Your task to perform on an android device: see sites visited before in the chrome app Image 0: 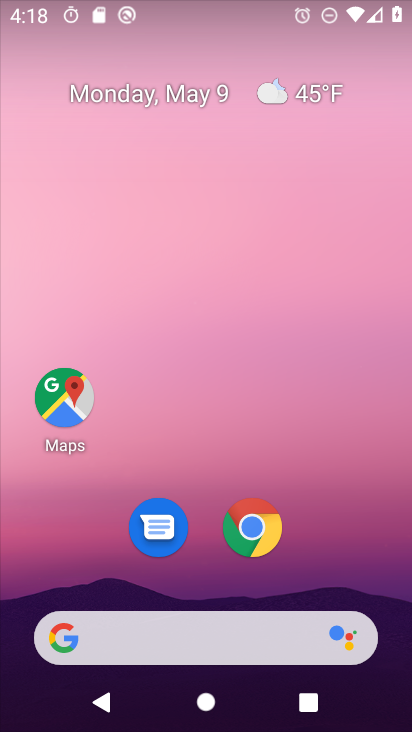
Step 0: click (267, 543)
Your task to perform on an android device: see sites visited before in the chrome app Image 1: 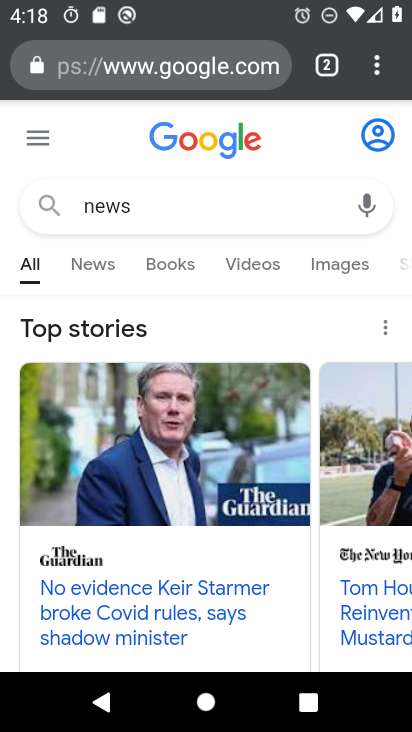
Step 1: click (388, 70)
Your task to perform on an android device: see sites visited before in the chrome app Image 2: 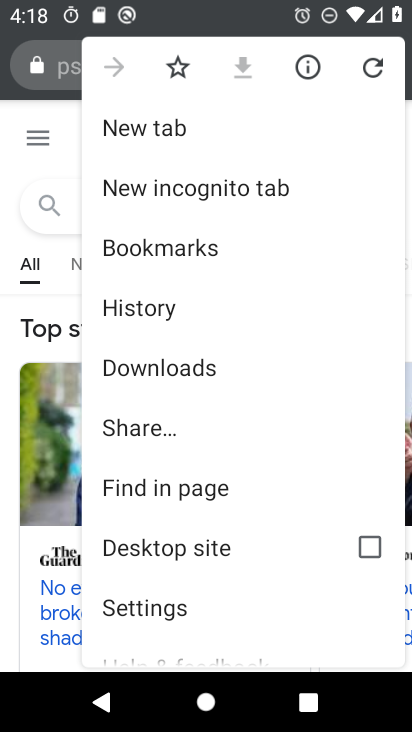
Step 2: click (253, 308)
Your task to perform on an android device: see sites visited before in the chrome app Image 3: 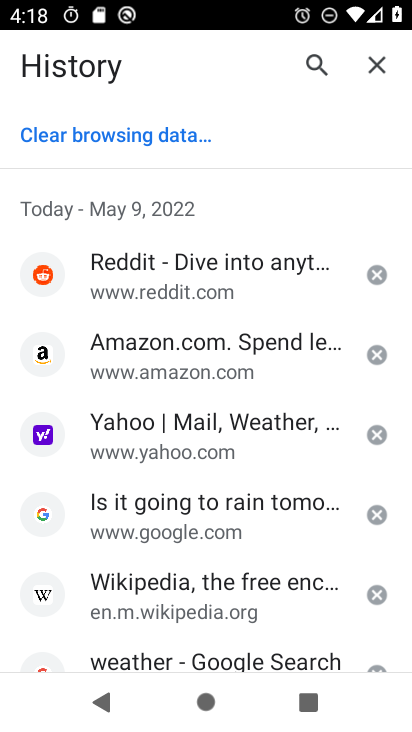
Step 3: task complete